Your task to perform on an android device: uninstall "Mercado Libre" Image 0: 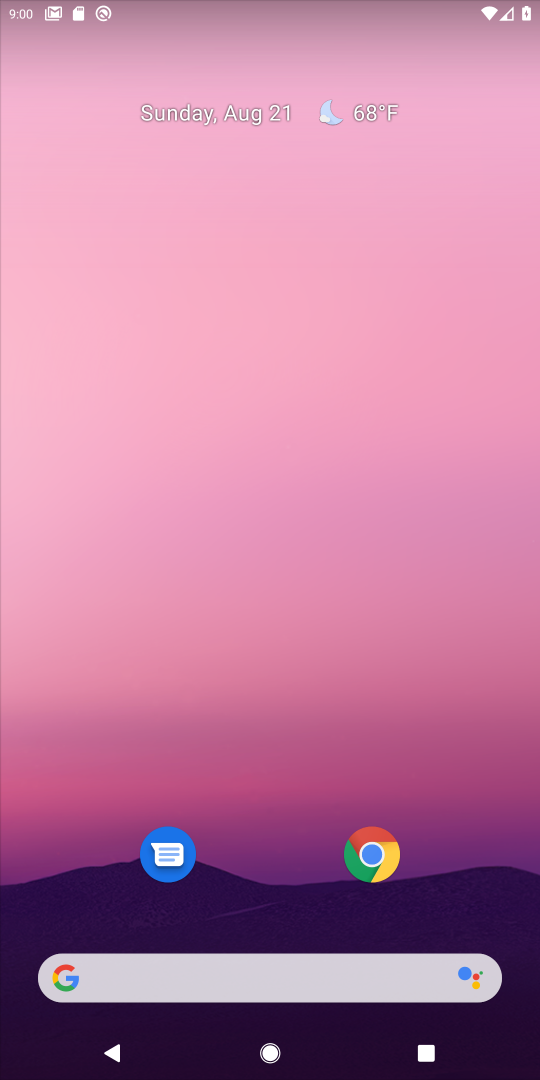
Step 0: drag from (319, 897) to (511, 63)
Your task to perform on an android device: uninstall "Mercado Libre" Image 1: 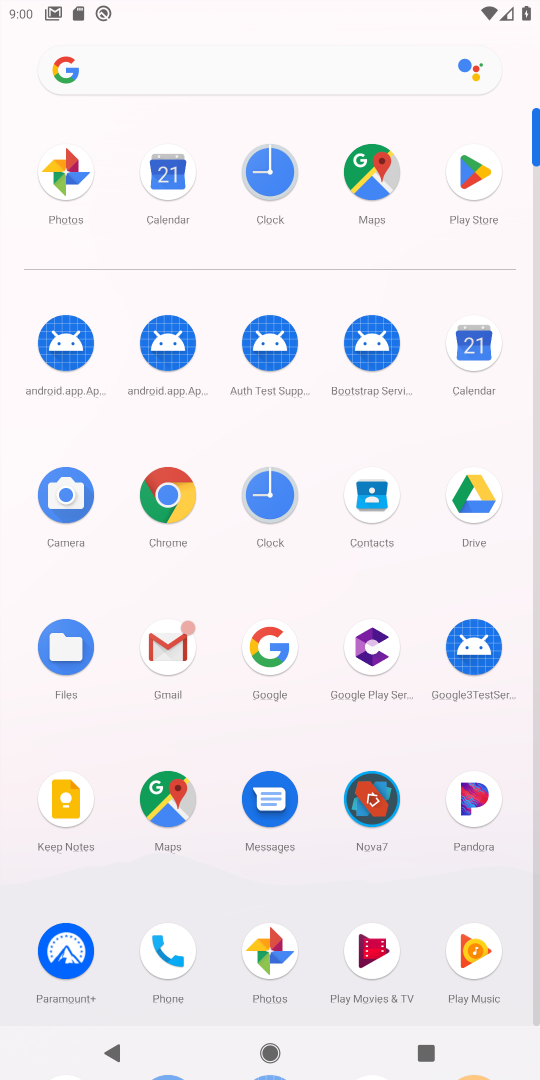
Step 1: click (442, 218)
Your task to perform on an android device: uninstall "Mercado Libre" Image 2: 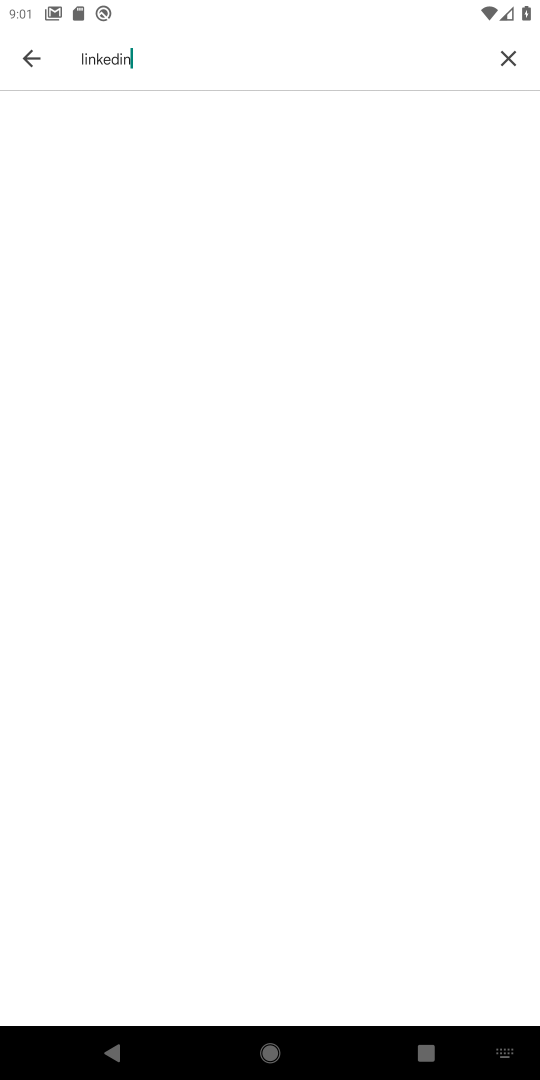
Step 2: click (525, 59)
Your task to perform on an android device: uninstall "Mercado Libre" Image 3: 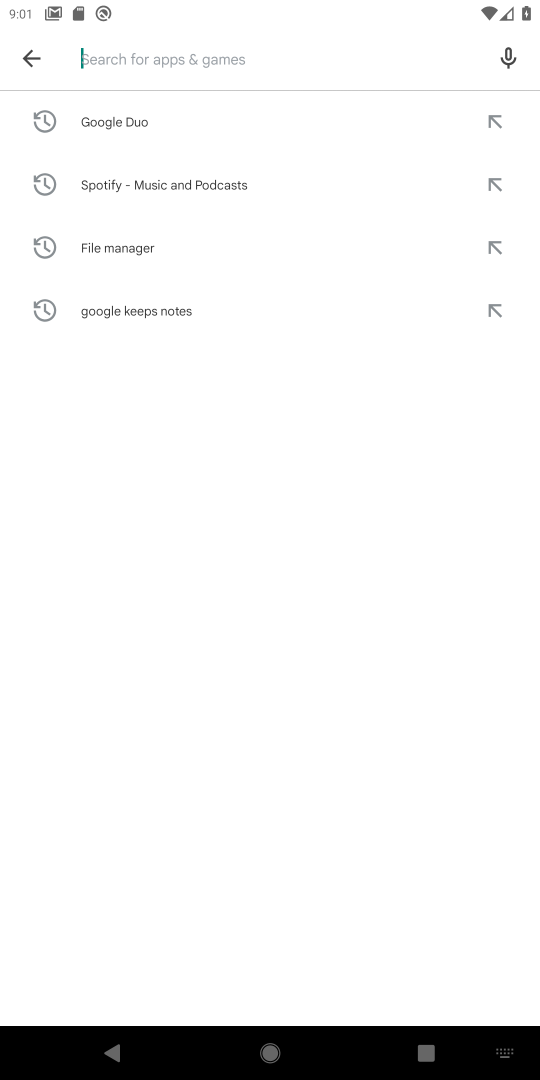
Step 3: task complete